Your task to perform on an android device: Clear all items from cart on bestbuy. Image 0: 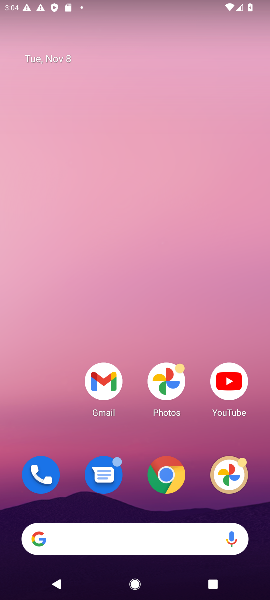
Step 0: drag from (134, 513) to (143, 49)
Your task to perform on an android device: Clear all items from cart on bestbuy. Image 1: 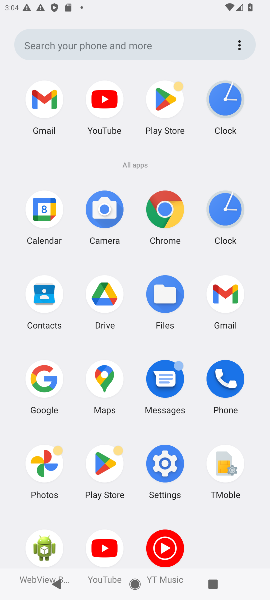
Step 1: click (44, 378)
Your task to perform on an android device: Clear all items from cart on bestbuy. Image 2: 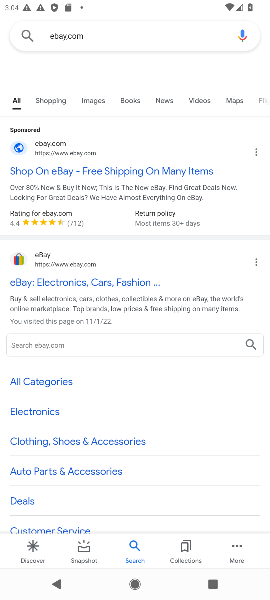
Step 2: click (122, 29)
Your task to perform on an android device: Clear all items from cart on bestbuy. Image 3: 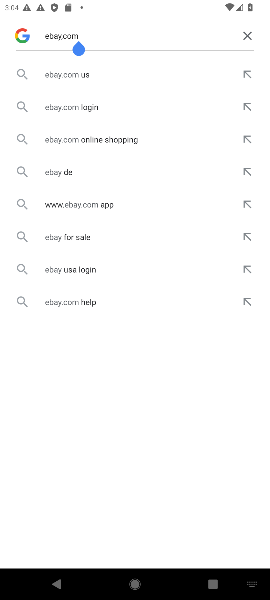
Step 3: click (248, 33)
Your task to perform on an android device: Clear all items from cart on bestbuy. Image 4: 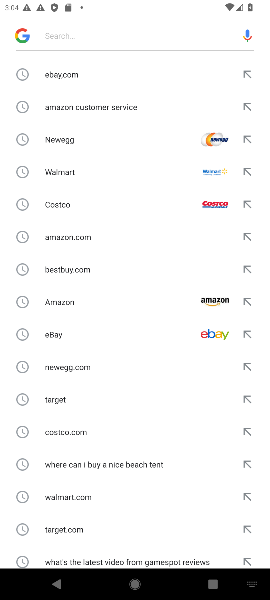
Step 4: click (132, 20)
Your task to perform on an android device: Clear all items from cart on bestbuy. Image 5: 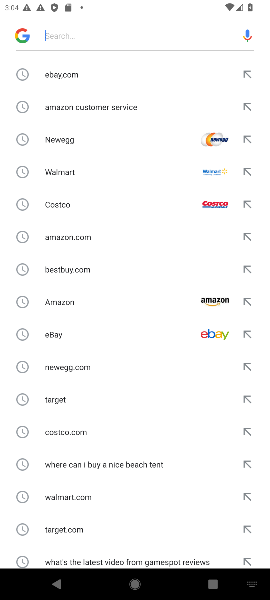
Step 5: type "bestbuy "
Your task to perform on an android device: Clear all items from cart on bestbuy. Image 6: 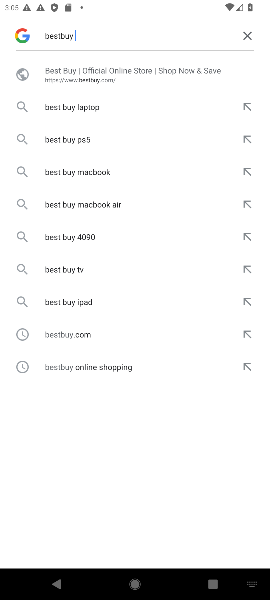
Step 6: click (97, 102)
Your task to perform on an android device: Clear all items from cart on bestbuy. Image 7: 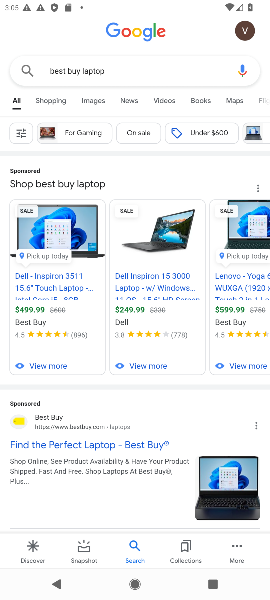
Step 7: click (23, 418)
Your task to perform on an android device: Clear all items from cart on bestbuy. Image 8: 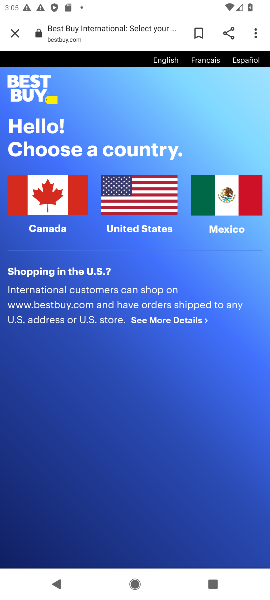
Step 8: click (136, 196)
Your task to perform on an android device: Clear all items from cart on bestbuy. Image 9: 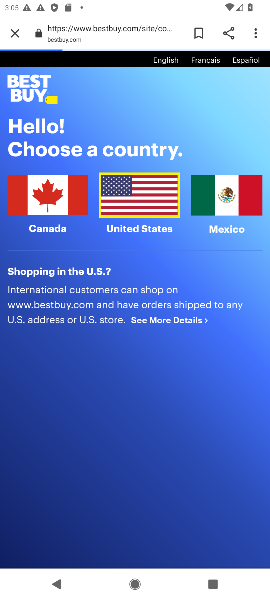
Step 9: click (136, 196)
Your task to perform on an android device: Clear all items from cart on bestbuy. Image 10: 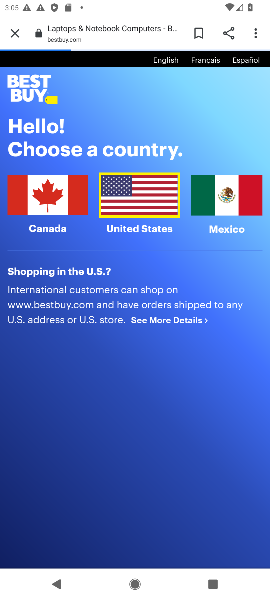
Step 10: click (136, 196)
Your task to perform on an android device: Clear all items from cart on bestbuy. Image 11: 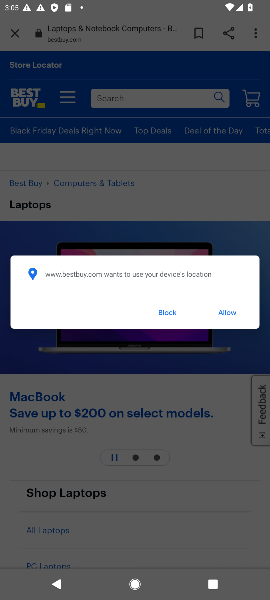
Step 11: click (226, 310)
Your task to perform on an android device: Clear all items from cart on bestbuy. Image 12: 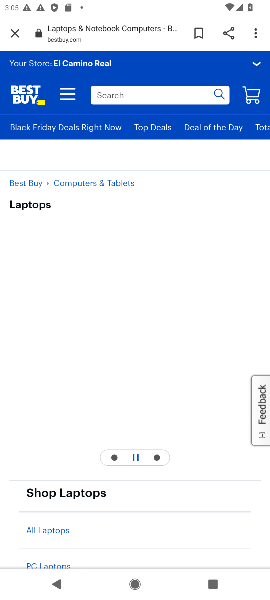
Step 12: click (250, 88)
Your task to perform on an android device: Clear all items from cart on bestbuy. Image 13: 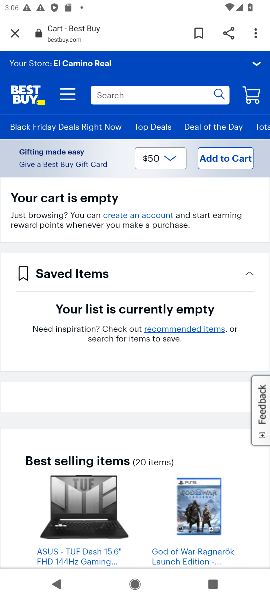
Step 13: task complete